Your task to perform on an android device: Show me productivity apps on the Play Store Image 0: 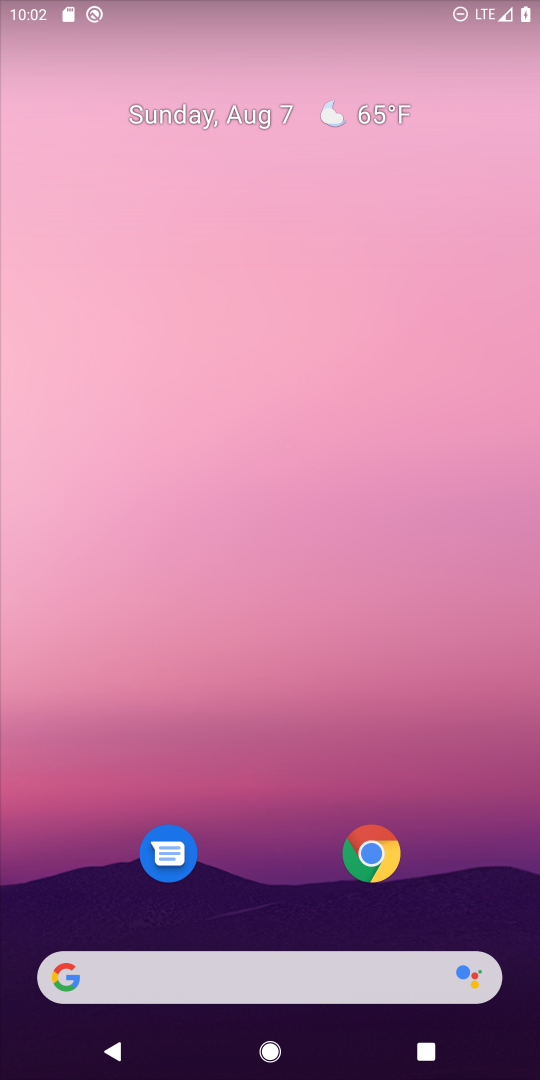
Step 0: drag from (390, 827) to (352, 322)
Your task to perform on an android device: Show me productivity apps on the Play Store Image 1: 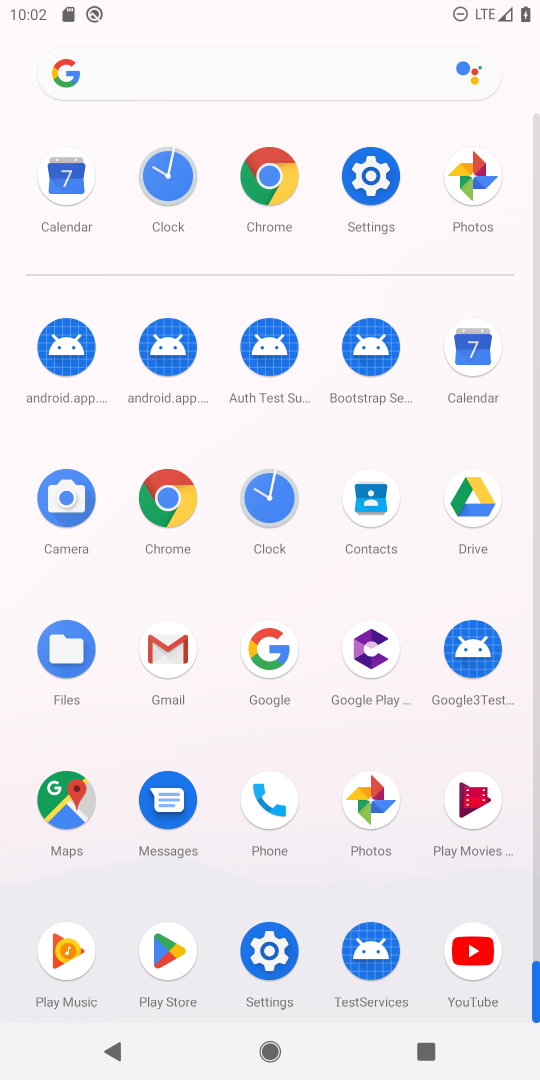
Step 1: click (171, 915)
Your task to perform on an android device: Show me productivity apps on the Play Store Image 2: 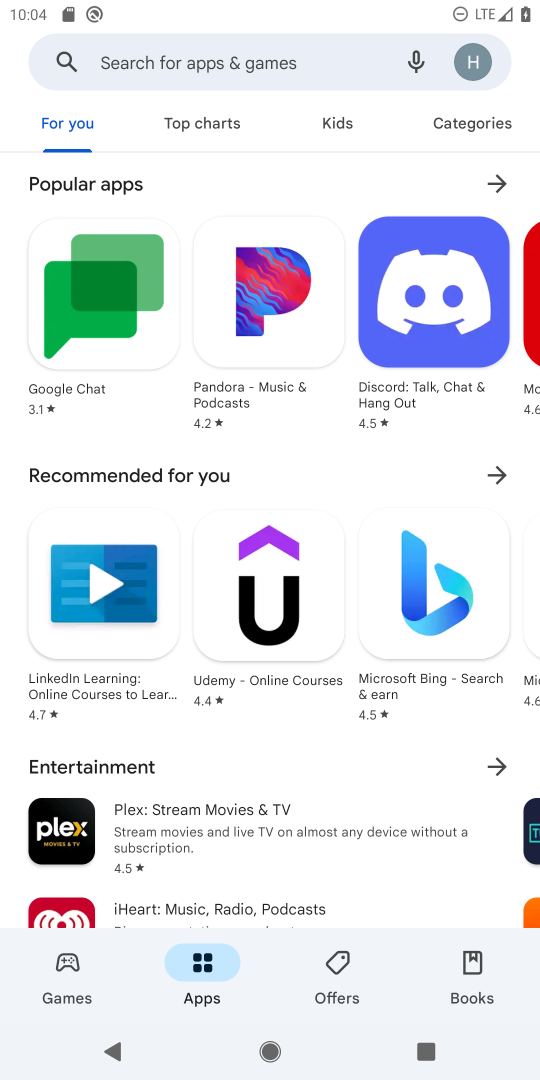
Step 2: task complete